Your task to perform on an android device: Open calendar and show me the second week of next month Image 0: 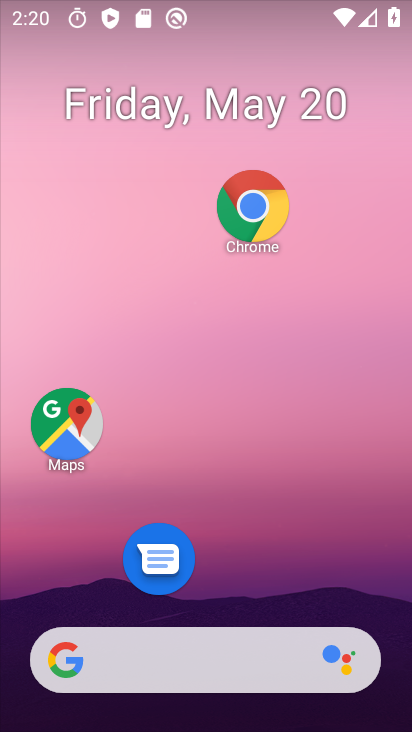
Step 0: drag from (245, 598) to (198, 73)
Your task to perform on an android device: Open calendar and show me the second week of next month Image 1: 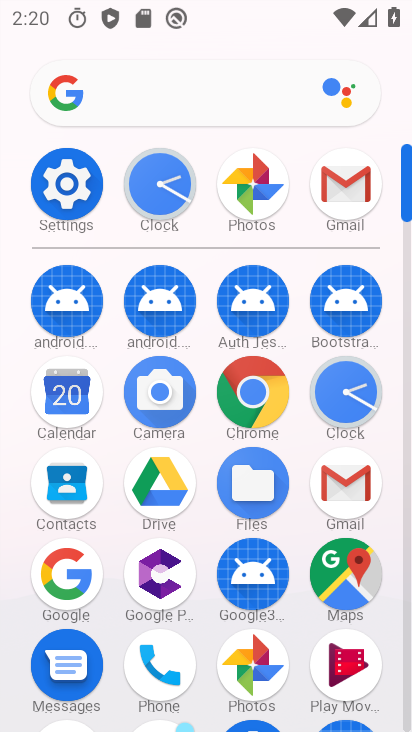
Step 1: click (78, 404)
Your task to perform on an android device: Open calendar and show me the second week of next month Image 2: 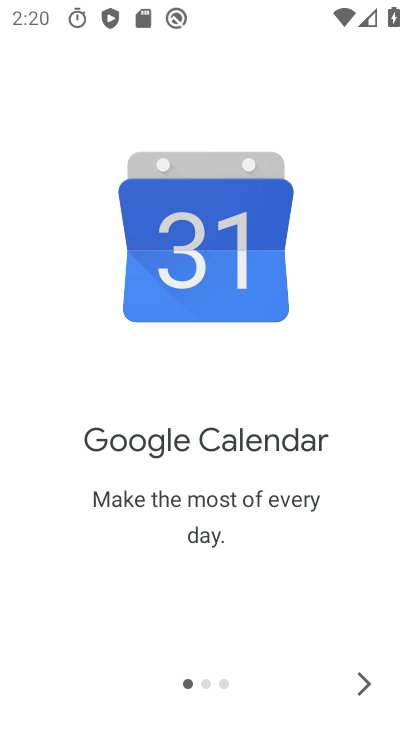
Step 2: click (358, 681)
Your task to perform on an android device: Open calendar and show me the second week of next month Image 3: 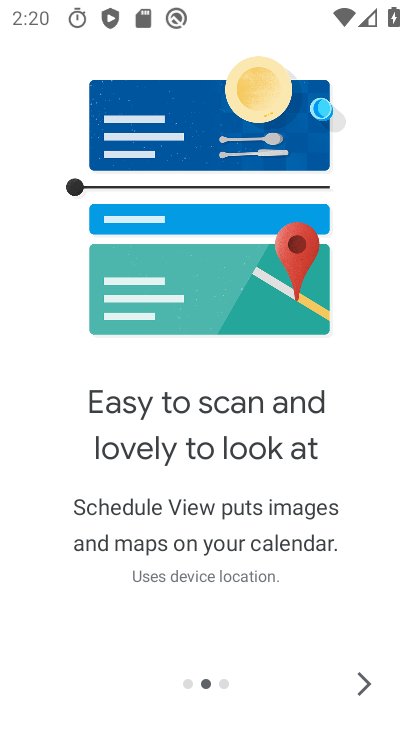
Step 3: click (359, 681)
Your task to perform on an android device: Open calendar and show me the second week of next month Image 4: 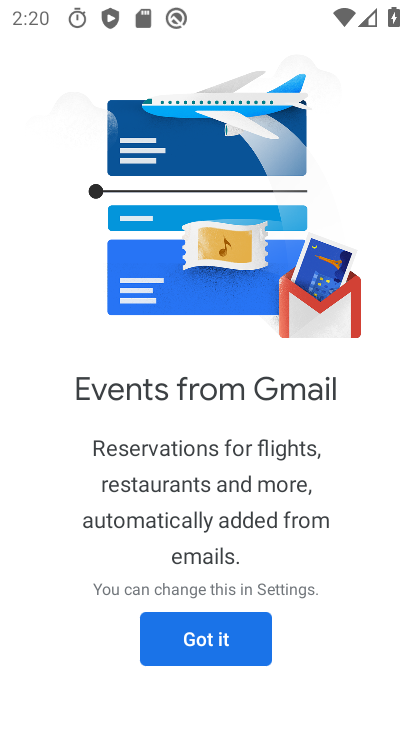
Step 4: click (359, 681)
Your task to perform on an android device: Open calendar and show me the second week of next month Image 5: 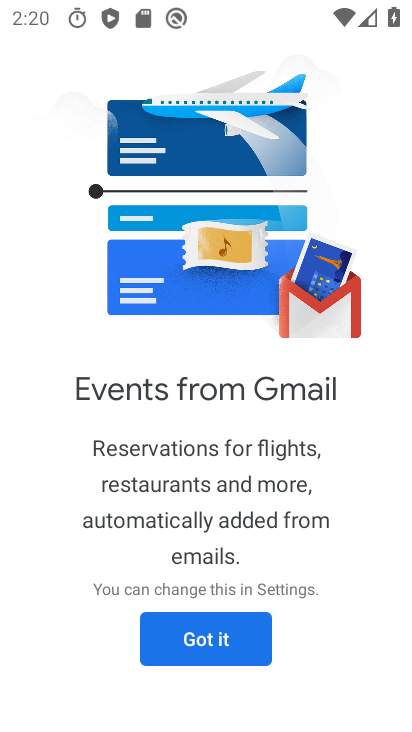
Step 5: click (238, 598)
Your task to perform on an android device: Open calendar and show me the second week of next month Image 6: 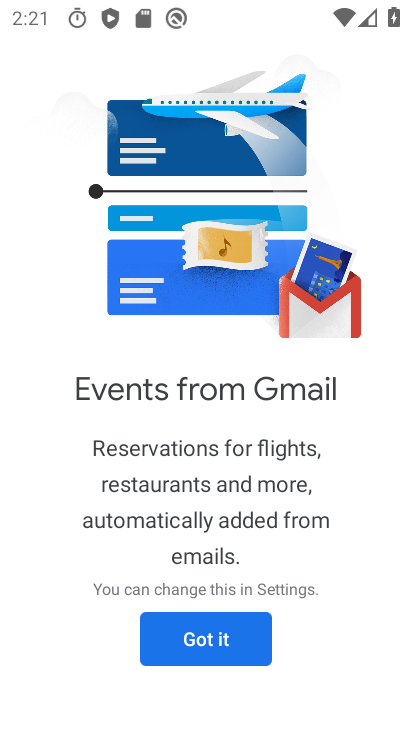
Step 6: click (229, 621)
Your task to perform on an android device: Open calendar and show me the second week of next month Image 7: 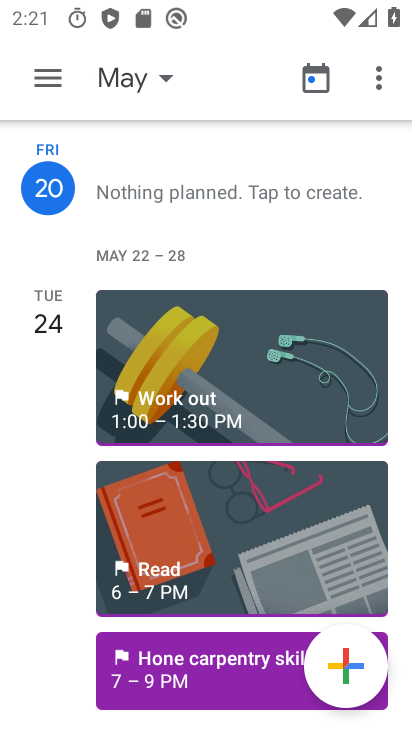
Step 7: click (48, 74)
Your task to perform on an android device: Open calendar and show me the second week of next month Image 8: 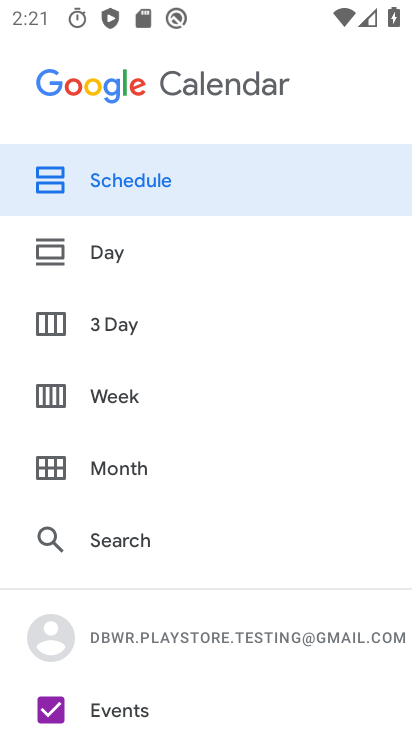
Step 8: drag from (333, 496) to (302, 48)
Your task to perform on an android device: Open calendar and show me the second week of next month Image 9: 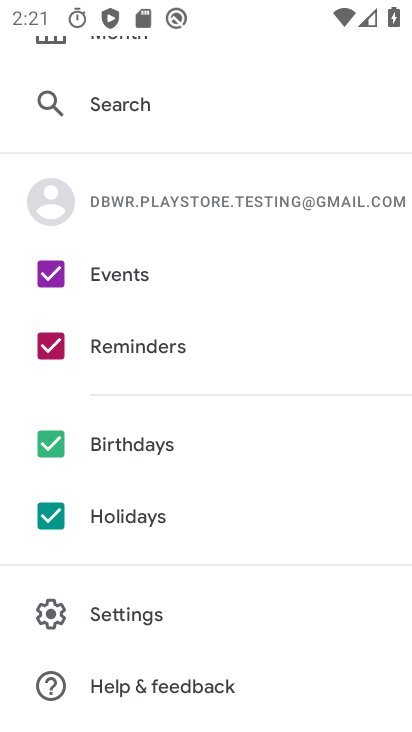
Step 9: drag from (242, 122) to (216, 498)
Your task to perform on an android device: Open calendar and show me the second week of next month Image 10: 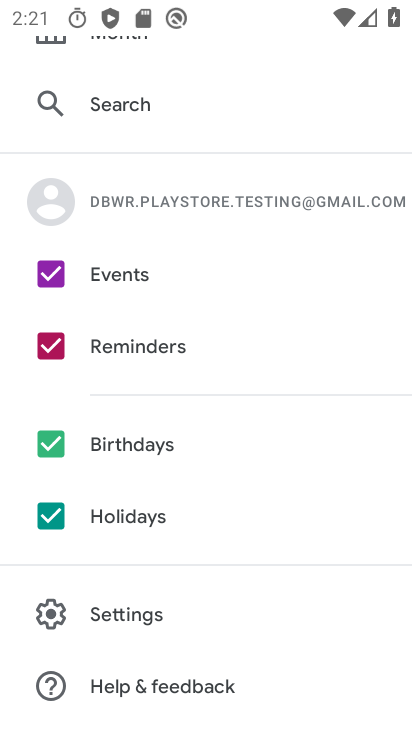
Step 10: drag from (71, 270) to (111, 725)
Your task to perform on an android device: Open calendar and show me the second week of next month Image 11: 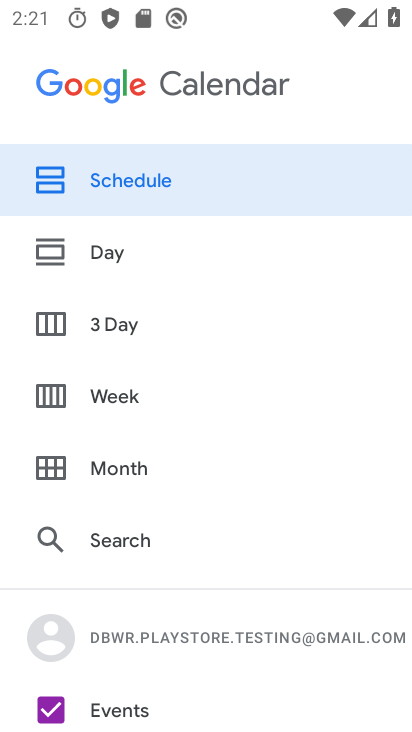
Step 11: click (122, 379)
Your task to perform on an android device: Open calendar and show me the second week of next month Image 12: 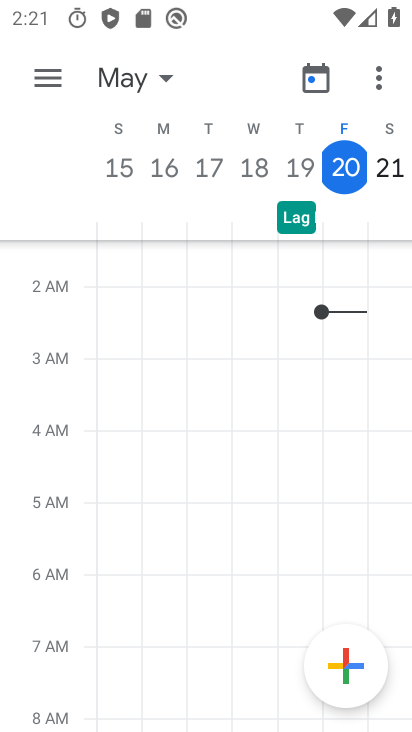
Step 12: task complete